Your task to perform on an android device: see creations saved in the google photos Image 0: 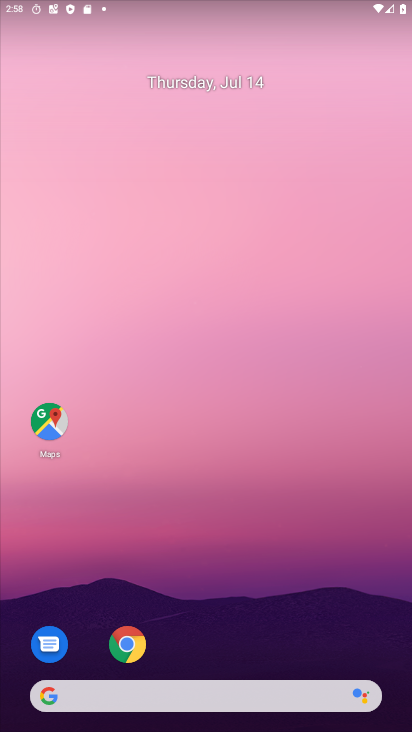
Step 0: click (274, 285)
Your task to perform on an android device: see creations saved in the google photos Image 1: 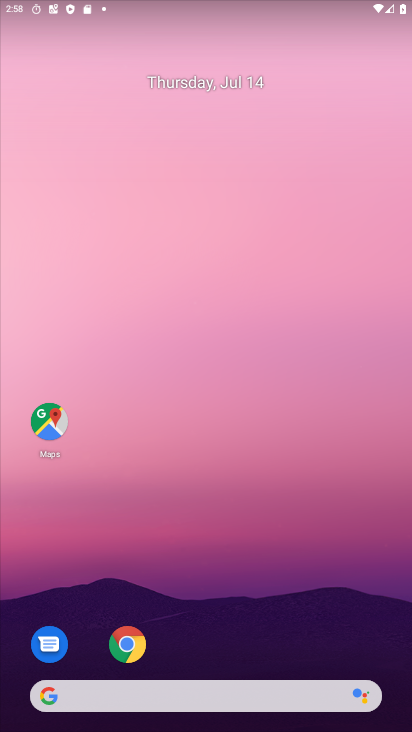
Step 1: drag from (39, 669) to (346, 138)
Your task to perform on an android device: see creations saved in the google photos Image 2: 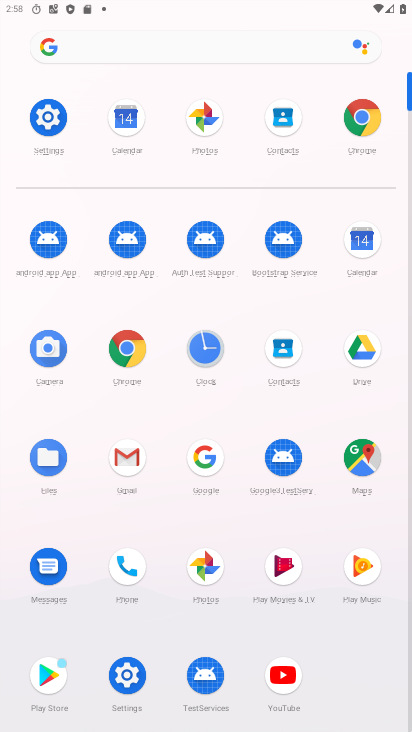
Step 2: click (207, 578)
Your task to perform on an android device: see creations saved in the google photos Image 3: 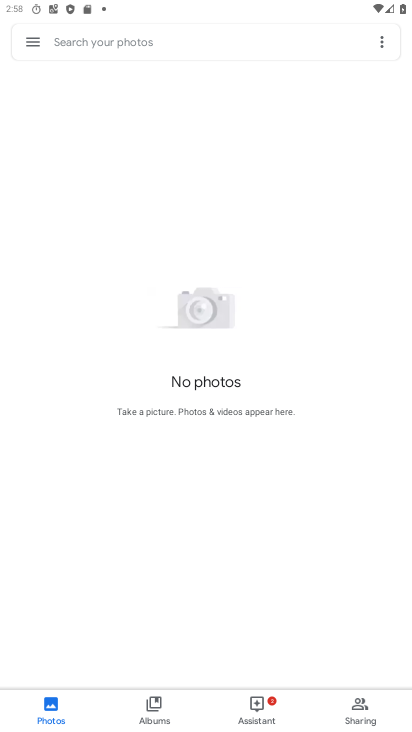
Step 3: click (18, 42)
Your task to perform on an android device: see creations saved in the google photos Image 4: 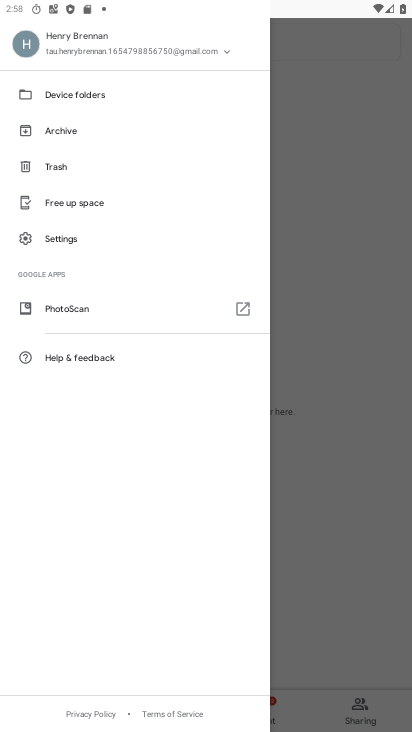
Step 4: click (28, 41)
Your task to perform on an android device: see creations saved in the google photos Image 5: 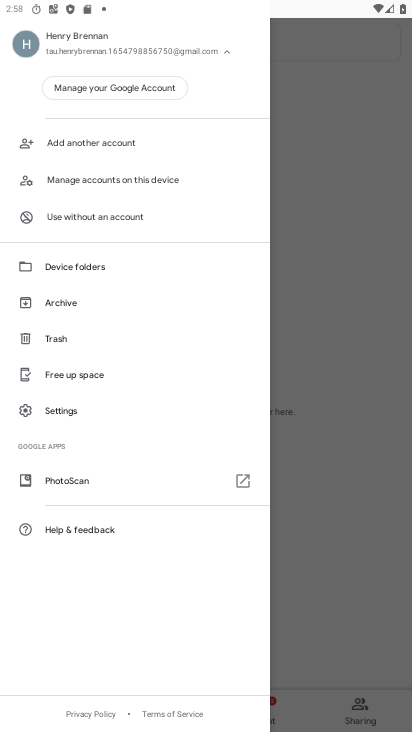
Step 5: click (303, 178)
Your task to perform on an android device: see creations saved in the google photos Image 6: 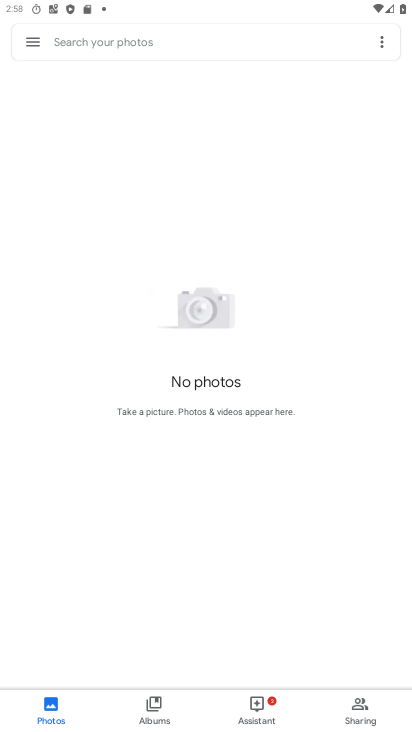
Step 6: click (390, 37)
Your task to perform on an android device: see creations saved in the google photos Image 7: 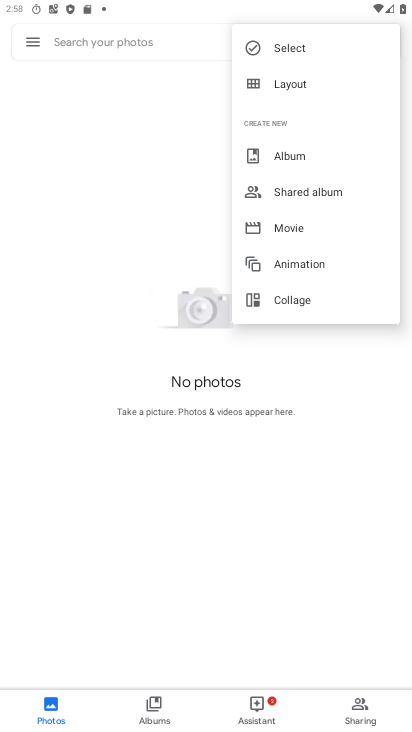
Step 7: click (305, 360)
Your task to perform on an android device: see creations saved in the google photos Image 8: 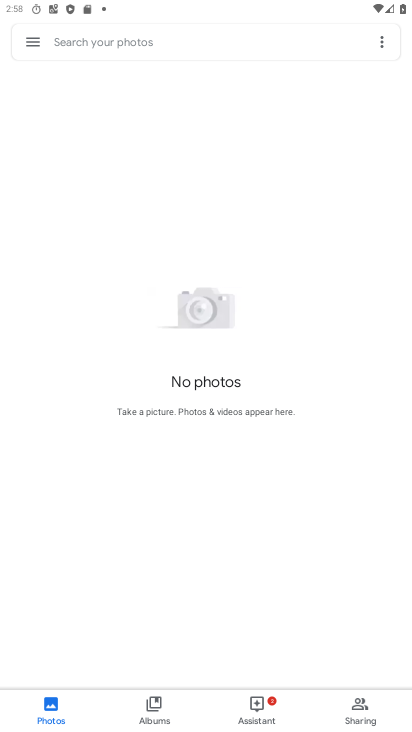
Step 8: click (154, 718)
Your task to perform on an android device: see creations saved in the google photos Image 9: 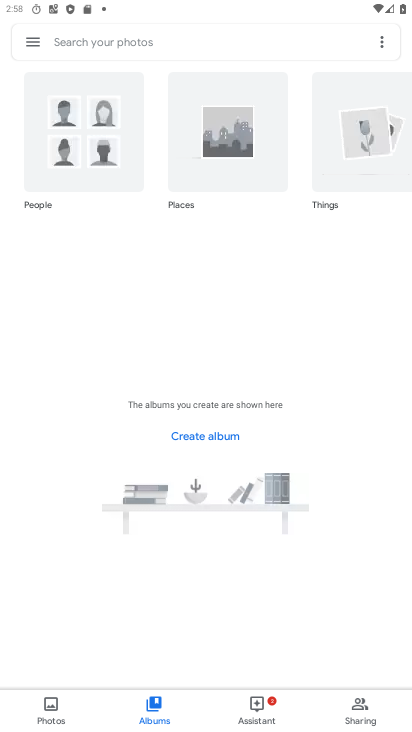
Step 9: task complete